Your task to perform on an android device: open app "Facebook Messenger" (install if not already installed) and enter user name: "divorce@inbox.com" and password: "caviar" Image 0: 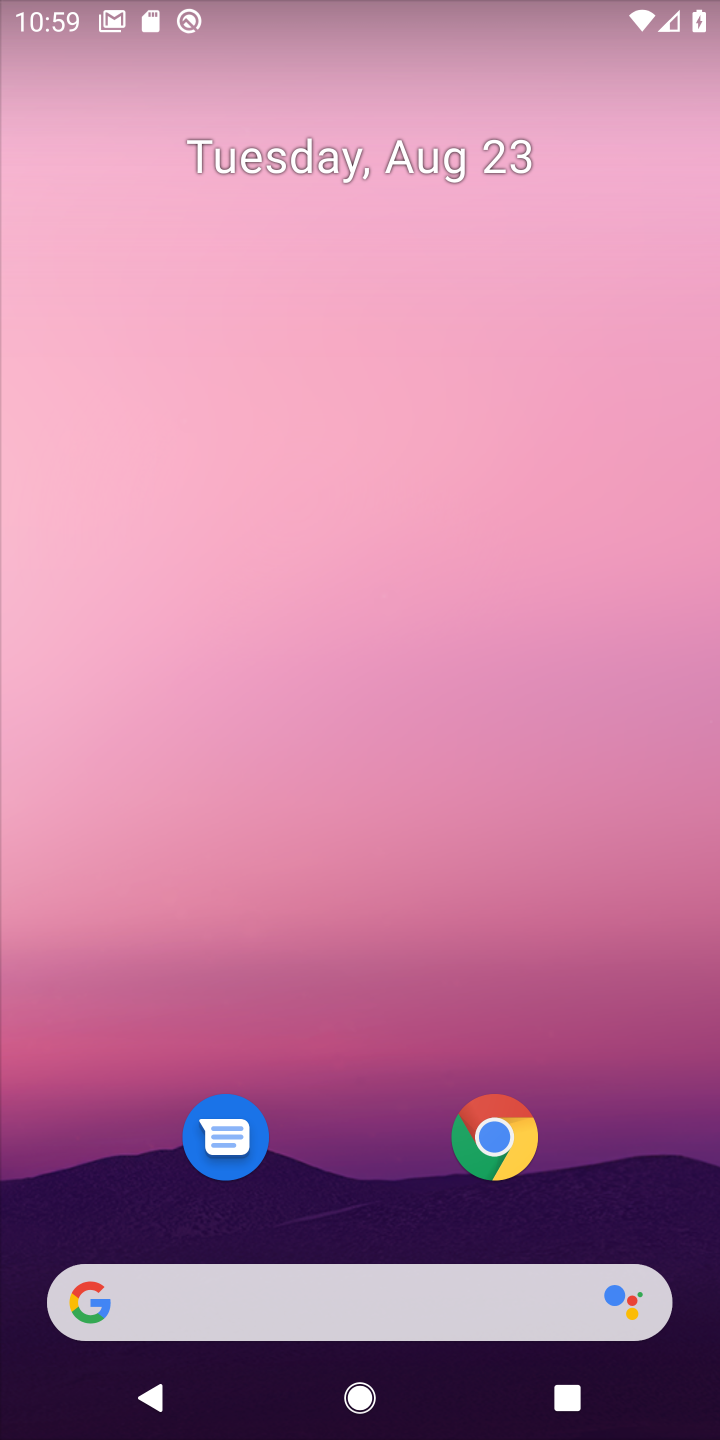
Step 0: drag from (351, 1202) to (678, 21)
Your task to perform on an android device: open app "Facebook Messenger" (install if not already installed) and enter user name: "divorce@inbox.com" and password: "caviar" Image 1: 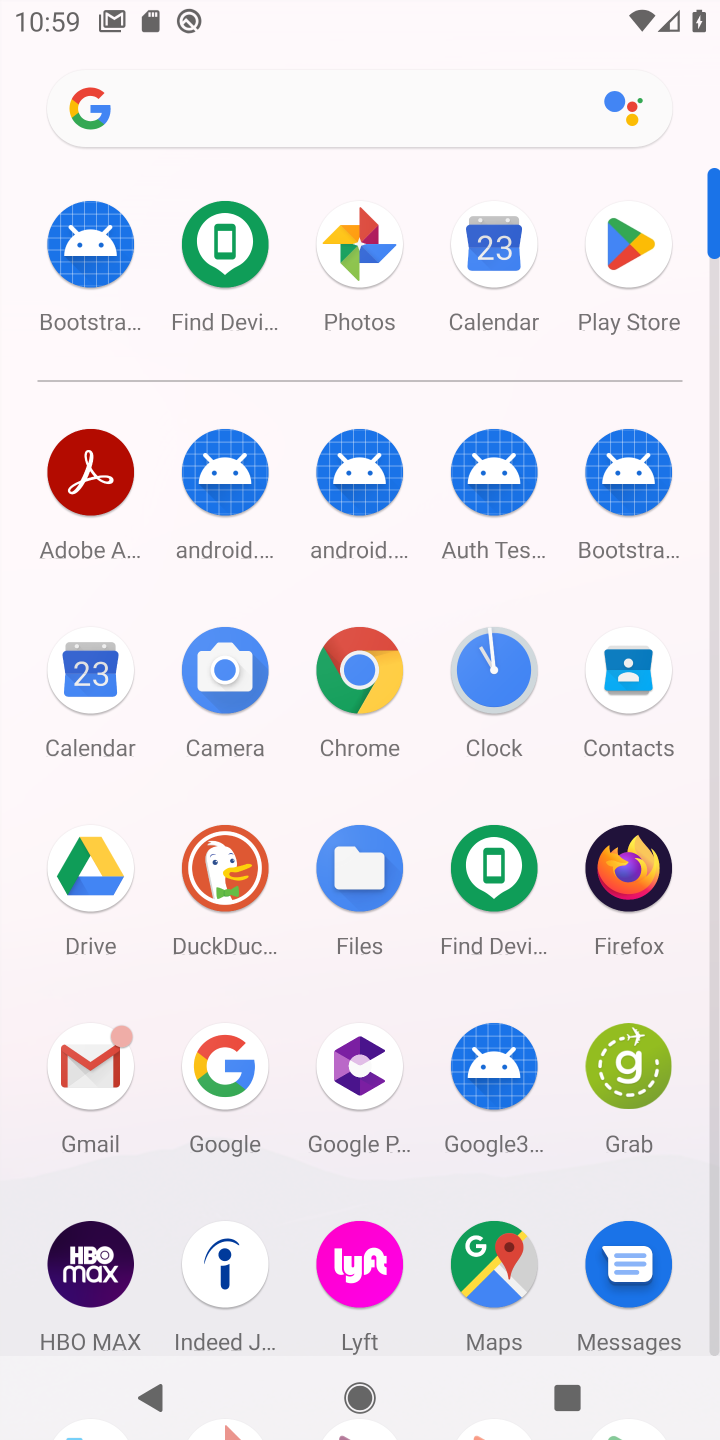
Step 1: click (643, 303)
Your task to perform on an android device: open app "Facebook Messenger" (install if not already installed) and enter user name: "divorce@inbox.com" and password: "caviar" Image 2: 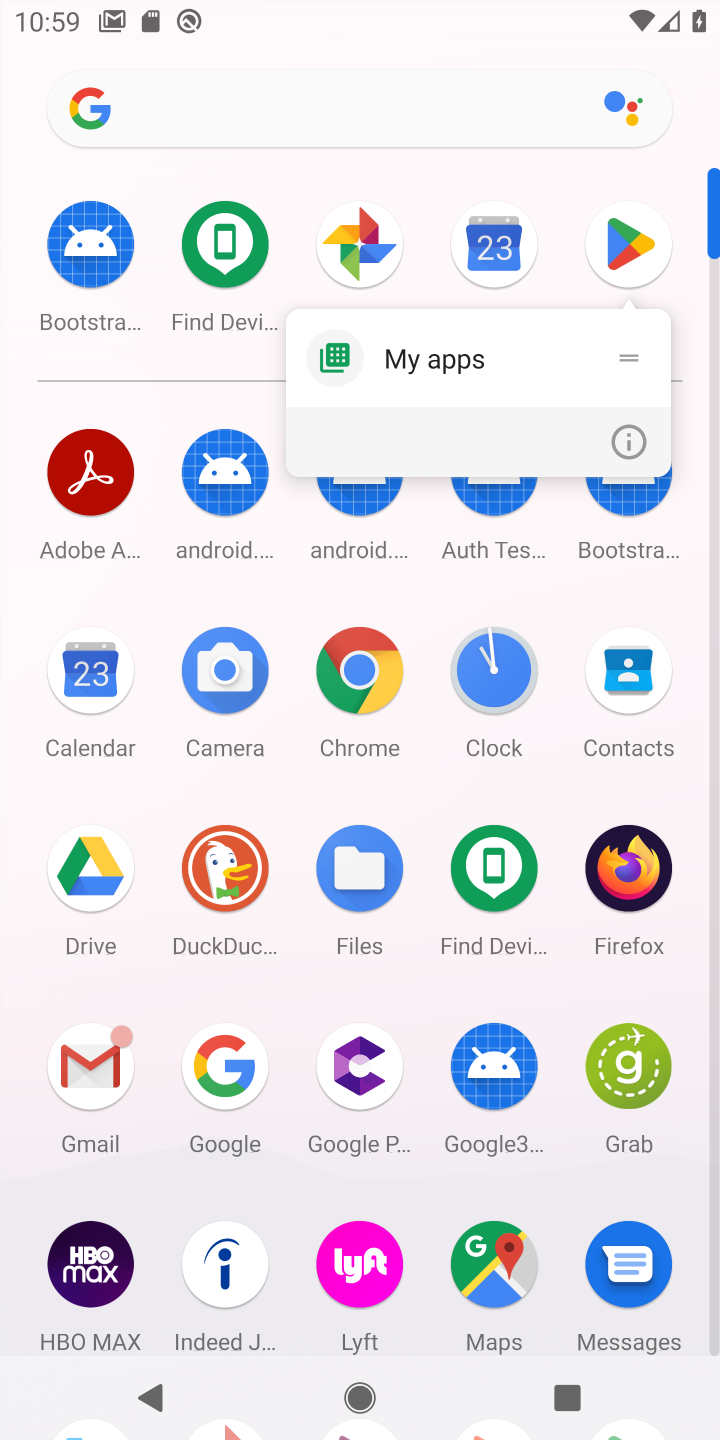
Step 2: click (618, 241)
Your task to perform on an android device: open app "Facebook Messenger" (install if not already installed) and enter user name: "divorce@inbox.com" and password: "caviar" Image 3: 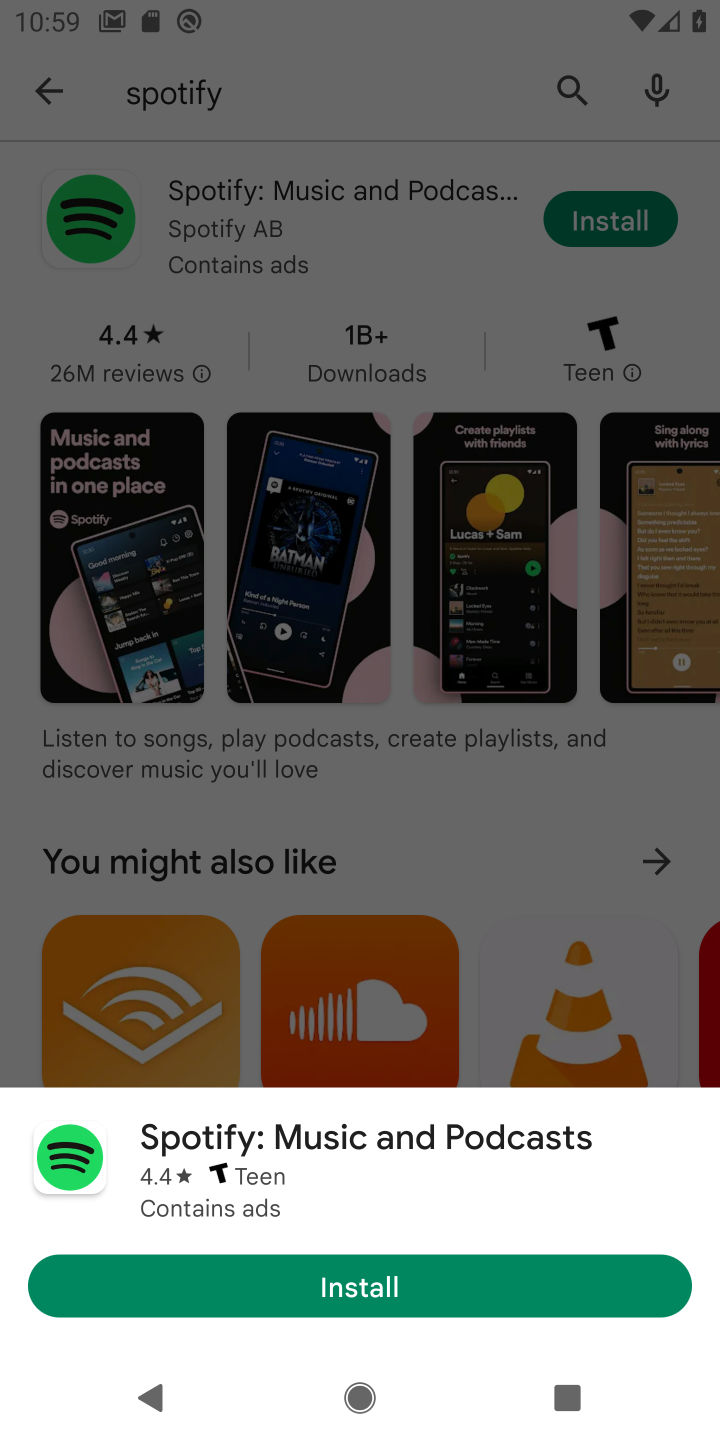
Step 3: click (202, 87)
Your task to perform on an android device: open app "Facebook Messenger" (install if not already installed) and enter user name: "divorce@inbox.com" and password: "caviar" Image 4: 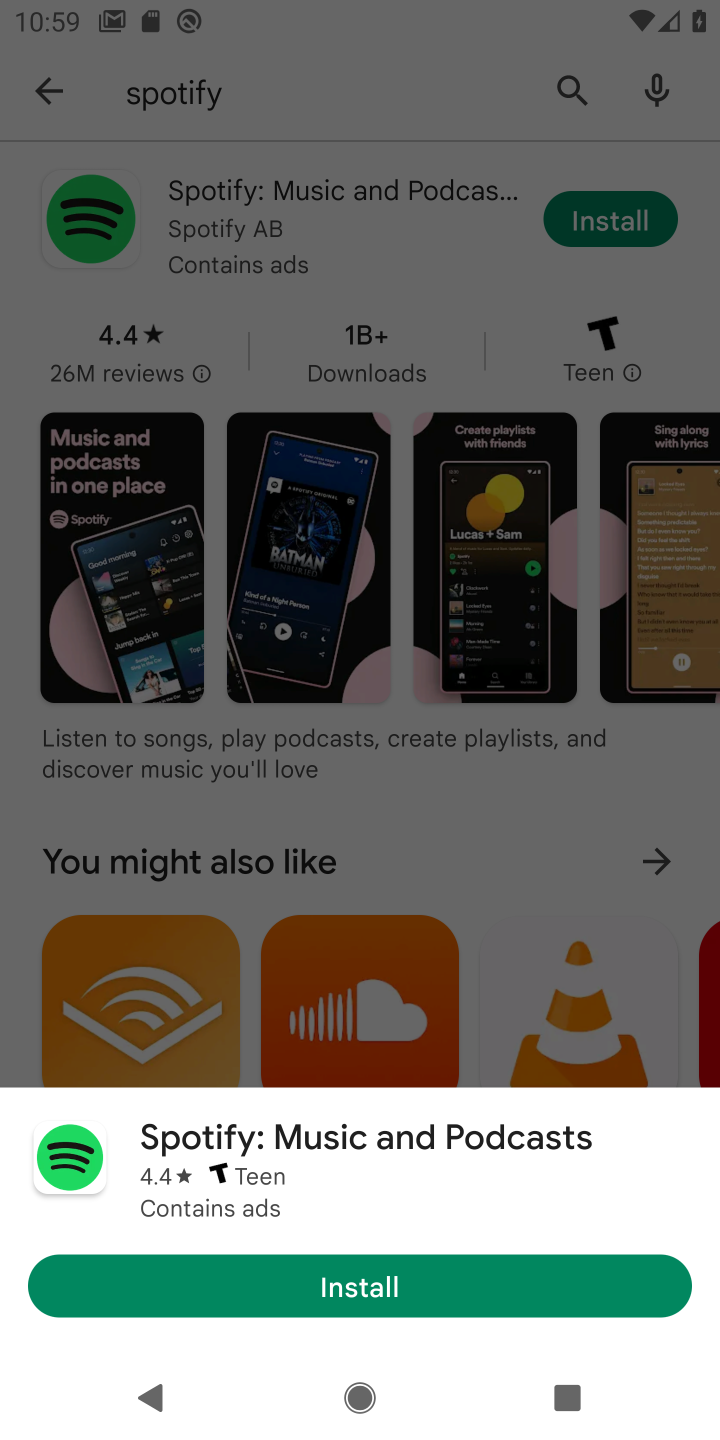
Step 4: click (36, 87)
Your task to perform on an android device: open app "Facebook Messenger" (install if not already installed) and enter user name: "divorce@inbox.com" and password: "caviar" Image 5: 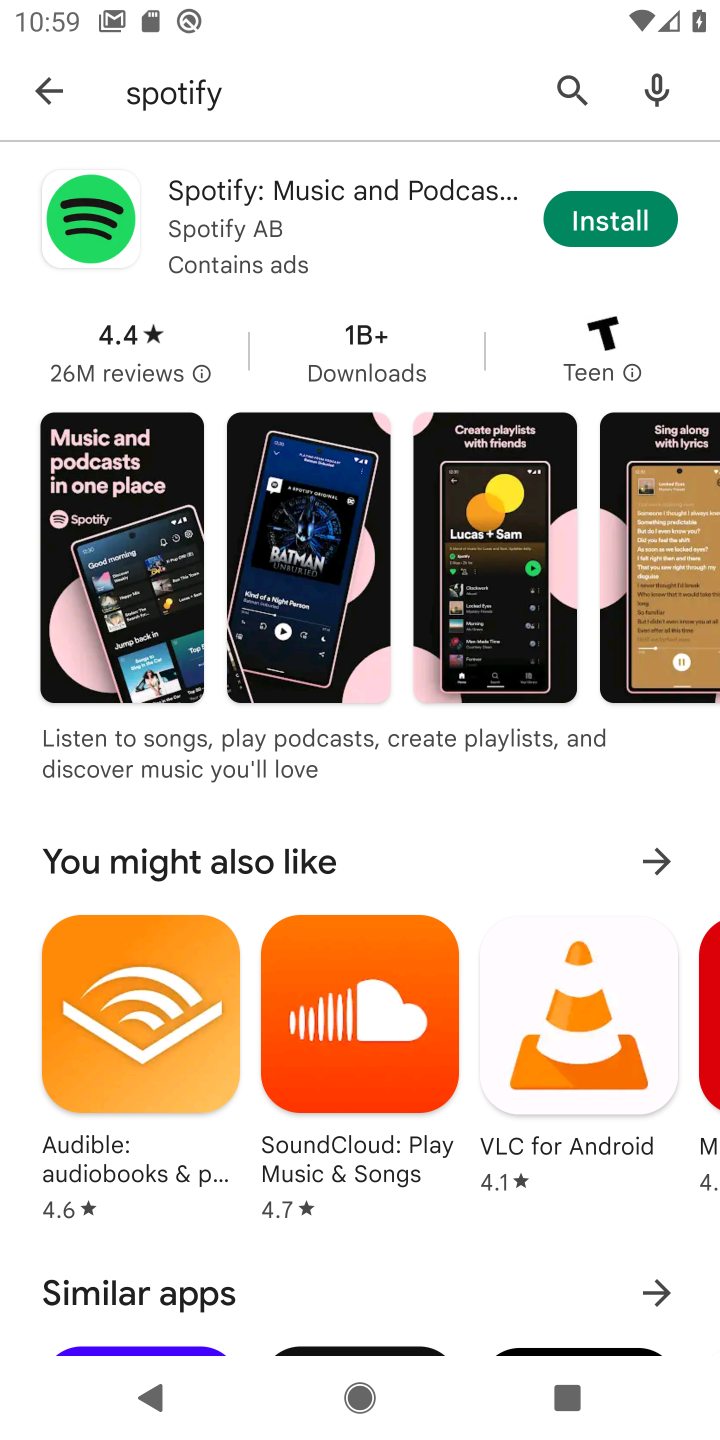
Step 5: click (47, 88)
Your task to perform on an android device: open app "Facebook Messenger" (install if not already installed) and enter user name: "divorce@inbox.com" and password: "caviar" Image 6: 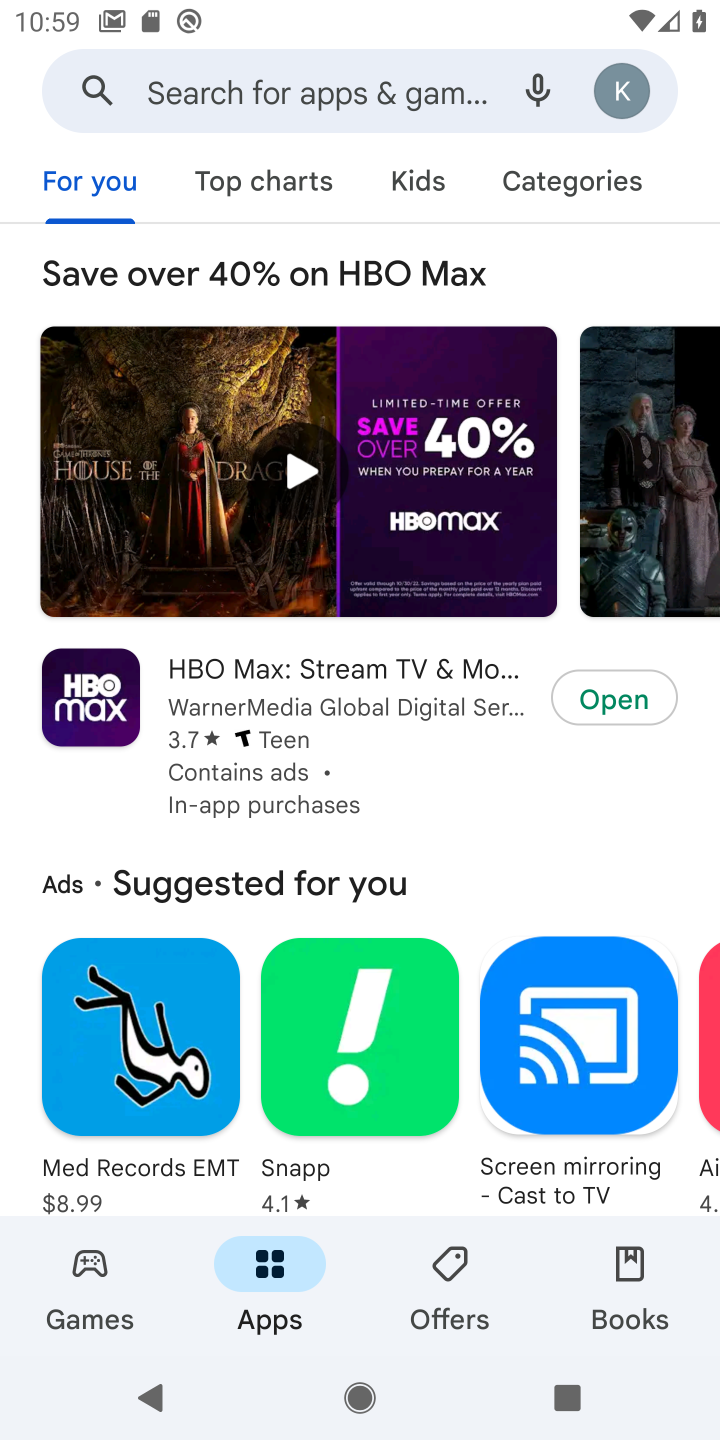
Step 6: click (315, 108)
Your task to perform on an android device: open app "Facebook Messenger" (install if not already installed) and enter user name: "divorce@inbox.com" and password: "caviar" Image 7: 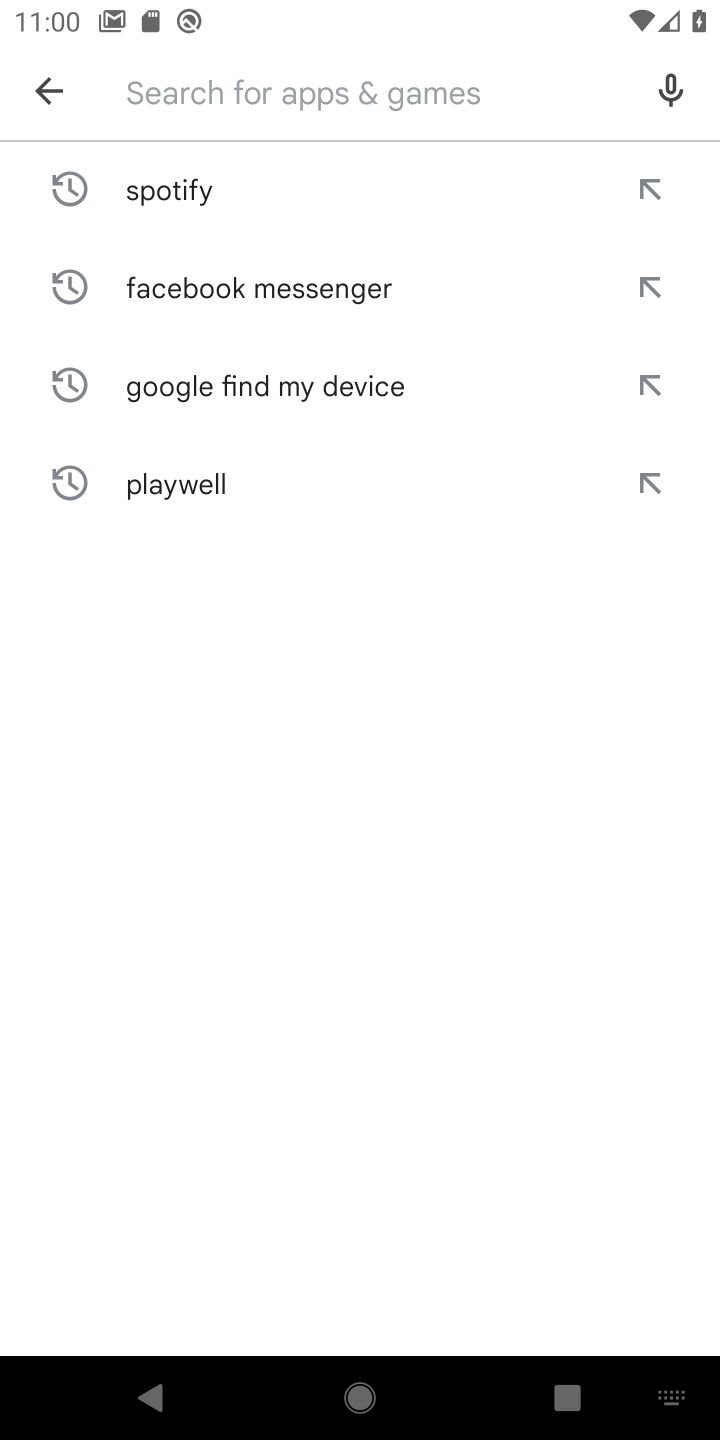
Step 7: type "facebook messenger"
Your task to perform on an android device: open app "Facebook Messenger" (install if not already installed) and enter user name: "divorce@inbox.com" and password: "caviar" Image 8: 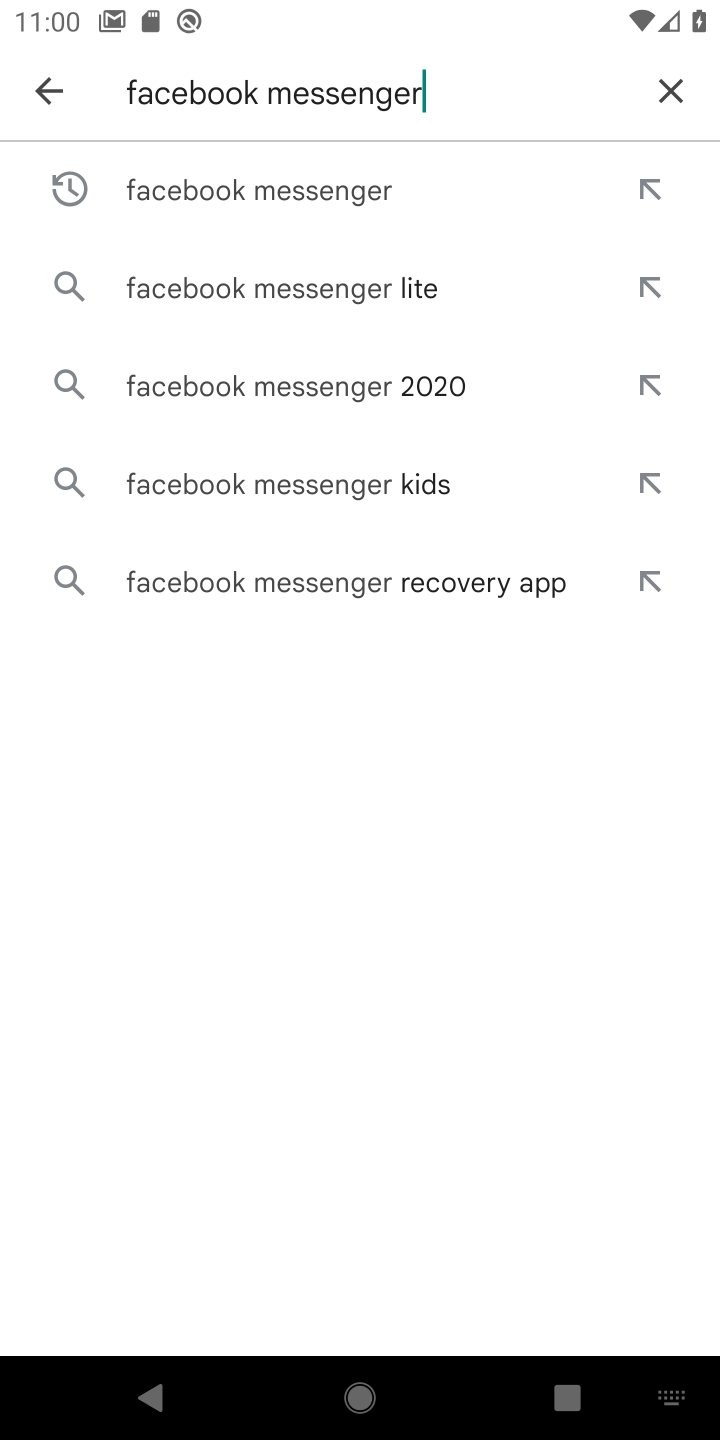
Step 8: click (299, 184)
Your task to perform on an android device: open app "Facebook Messenger" (install if not already installed) and enter user name: "divorce@inbox.com" and password: "caviar" Image 9: 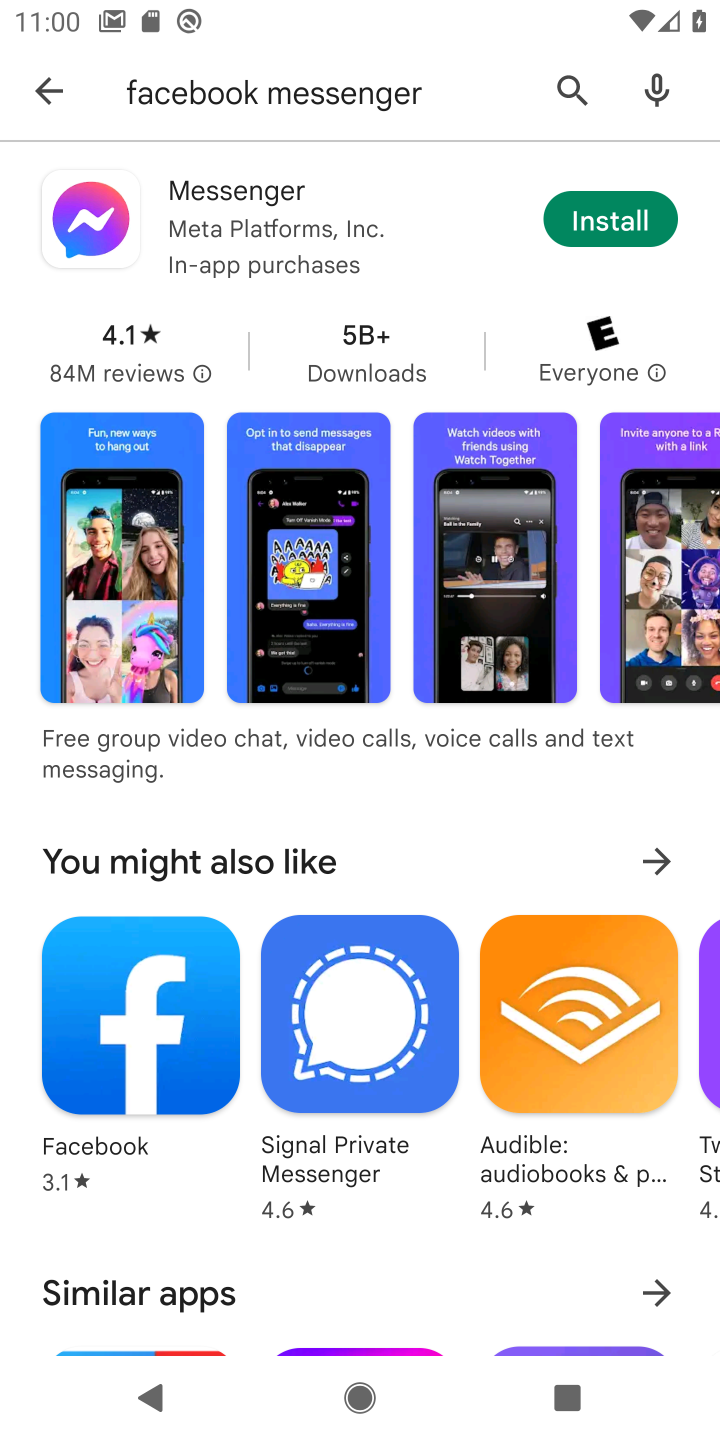
Step 9: click (602, 230)
Your task to perform on an android device: open app "Facebook Messenger" (install if not already installed) and enter user name: "divorce@inbox.com" and password: "caviar" Image 10: 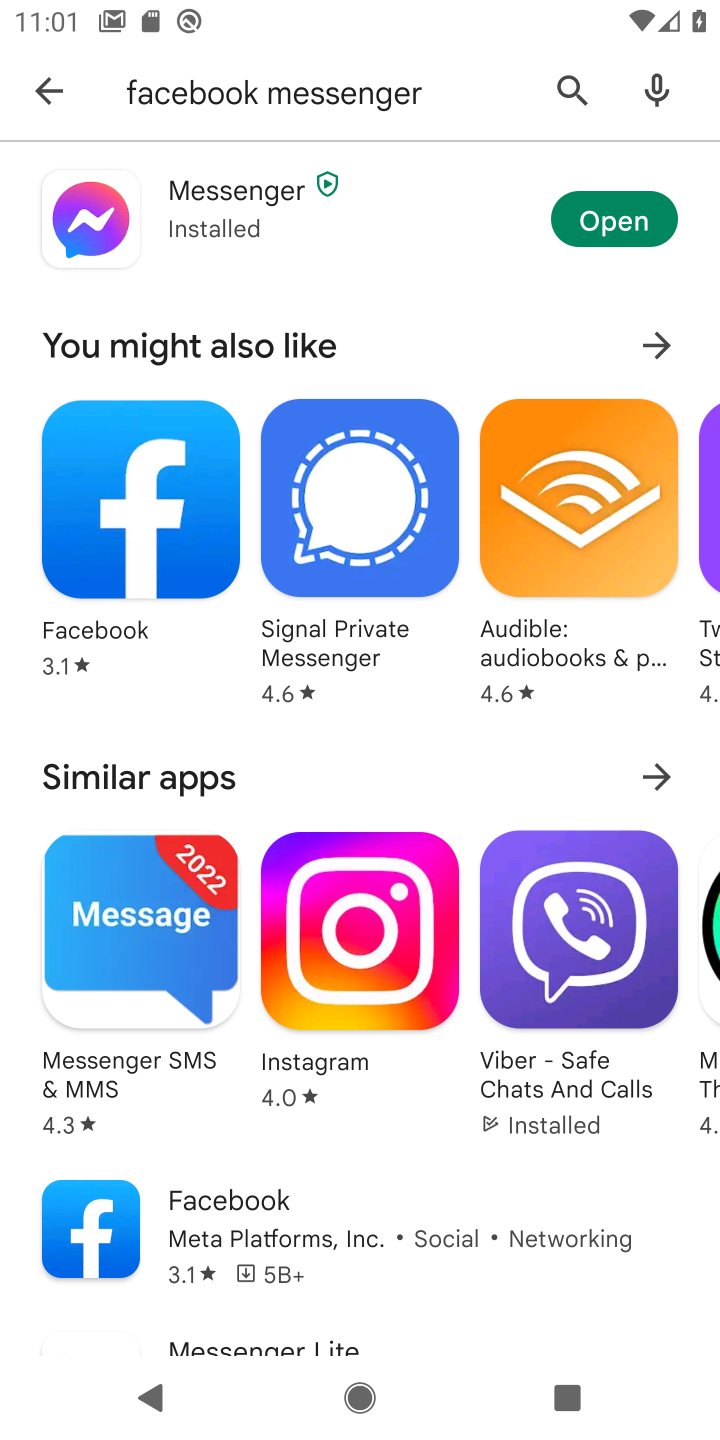
Step 10: click (617, 226)
Your task to perform on an android device: open app "Facebook Messenger" (install if not already installed) and enter user name: "divorce@inbox.com" and password: "caviar" Image 11: 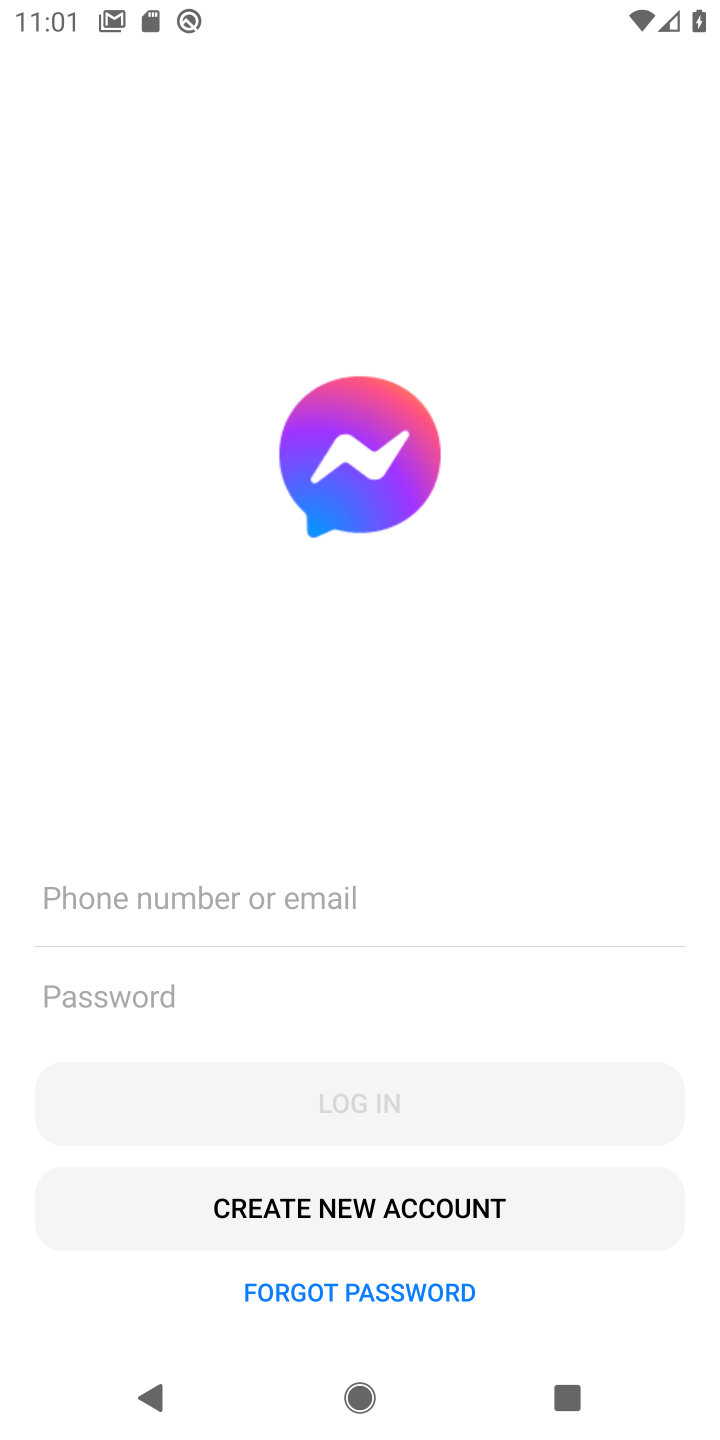
Step 11: click (208, 901)
Your task to perform on an android device: open app "Facebook Messenger" (install if not already installed) and enter user name: "divorce@inbox.com" and password: "caviar" Image 12: 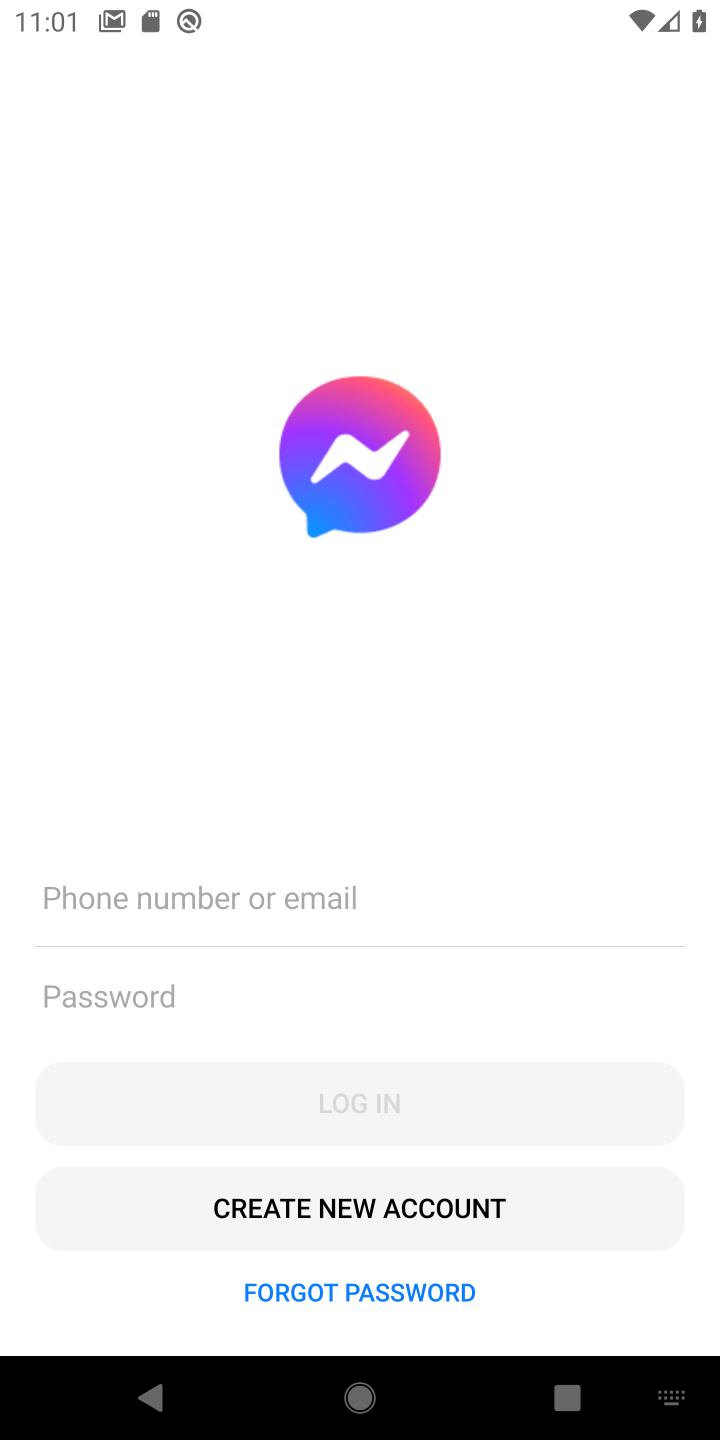
Step 12: type "divorce@inbox.com"
Your task to perform on an android device: open app "Facebook Messenger" (install if not already installed) and enter user name: "divorce@inbox.com" and password: "caviar" Image 13: 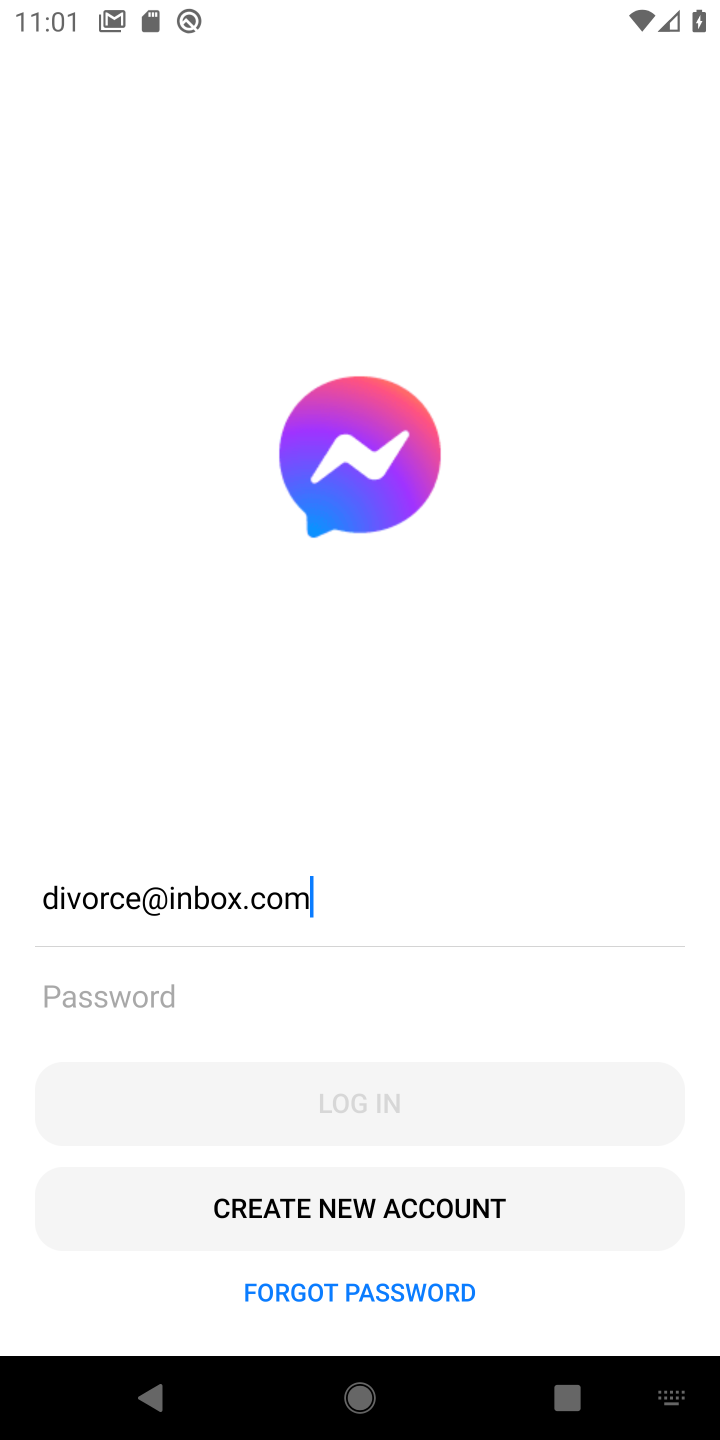
Step 13: click (353, 990)
Your task to perform on an android device: open app "Facebook Messenger" (install if not already installed) and enter user name: "divorce@inbox.com" and password: "caviar" Image 14: 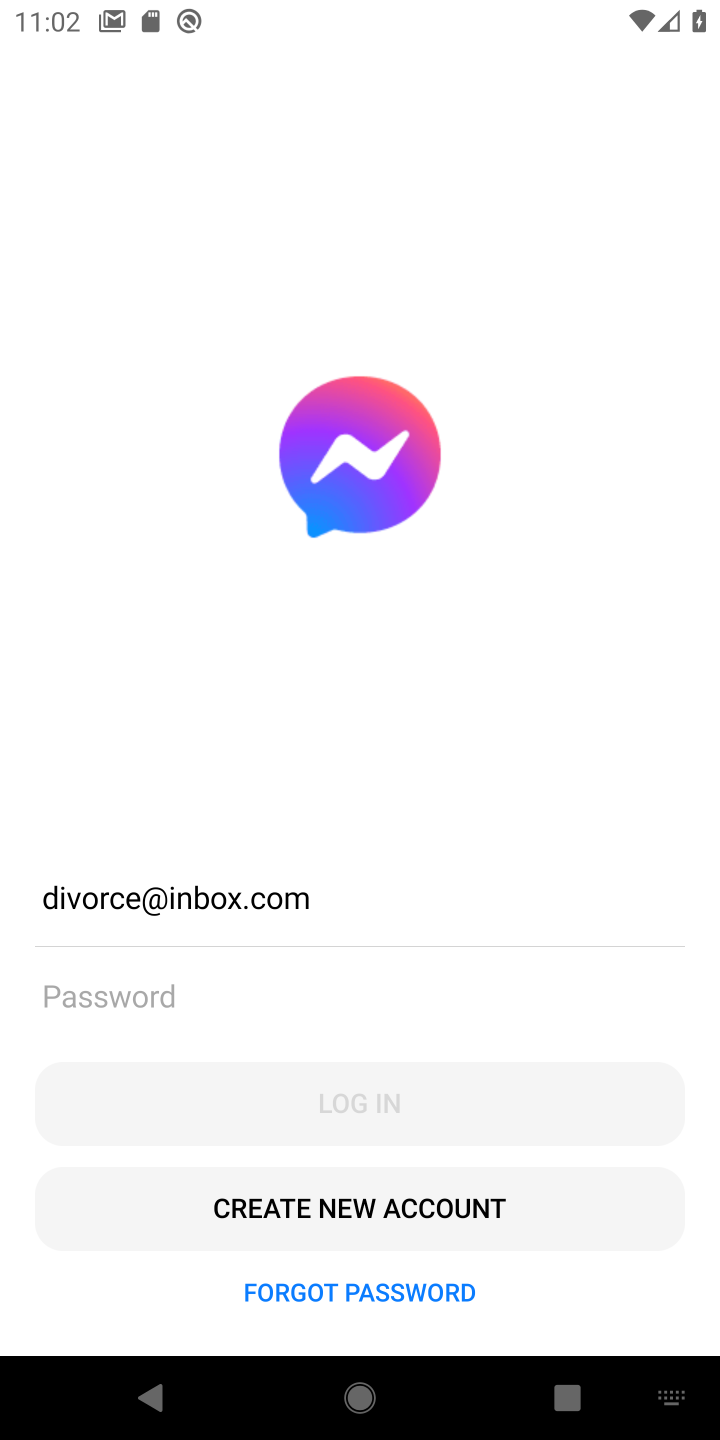
Step 14: type "caviar"
Your task to perform on an android device: open app "Facebook Messenger" (install if not already installed) and enter user name: "divorce@inbox.com" and password: "caviar" Image 15: 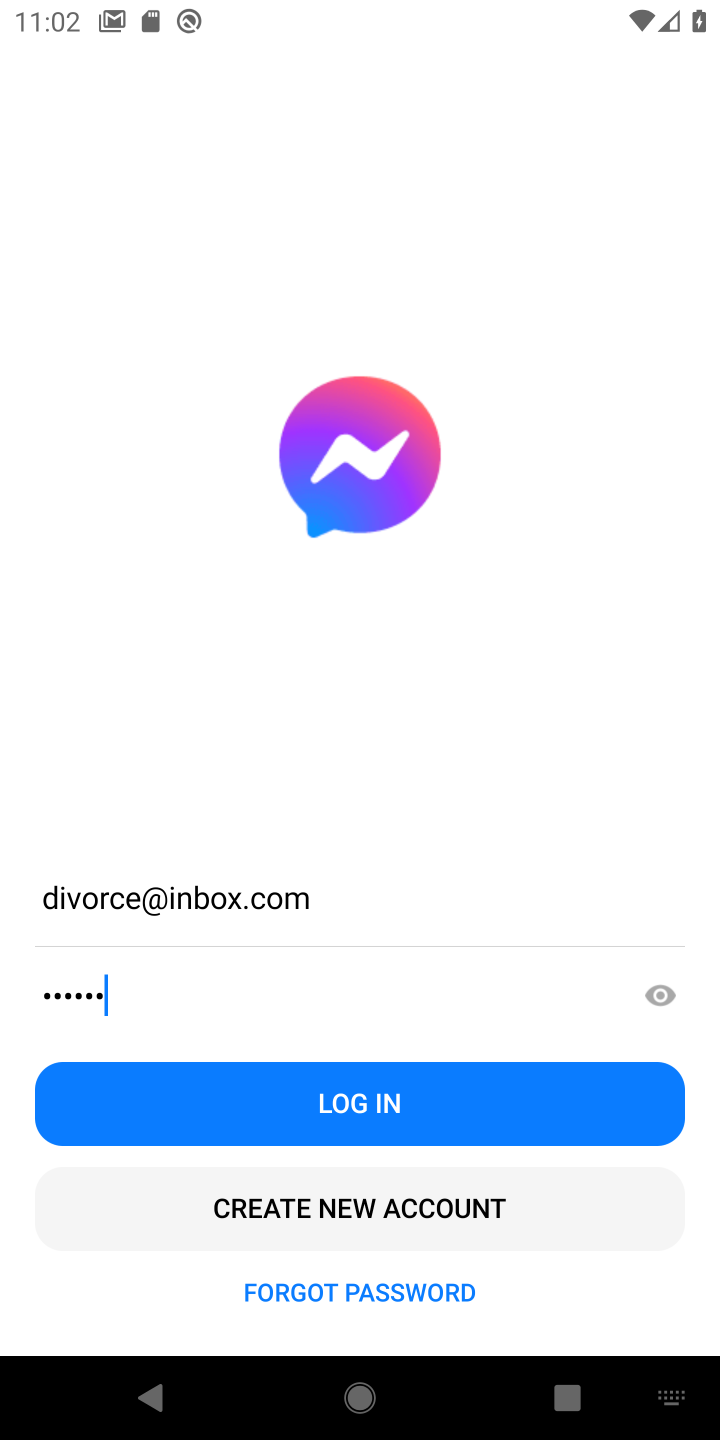
Step 15: click (661, 985)
Your task to perform on an android device: open app "Facebook Messenger" (install if not already installed) and enter user name: "divorce@inbox.com" and password: "caviar" Image 16: 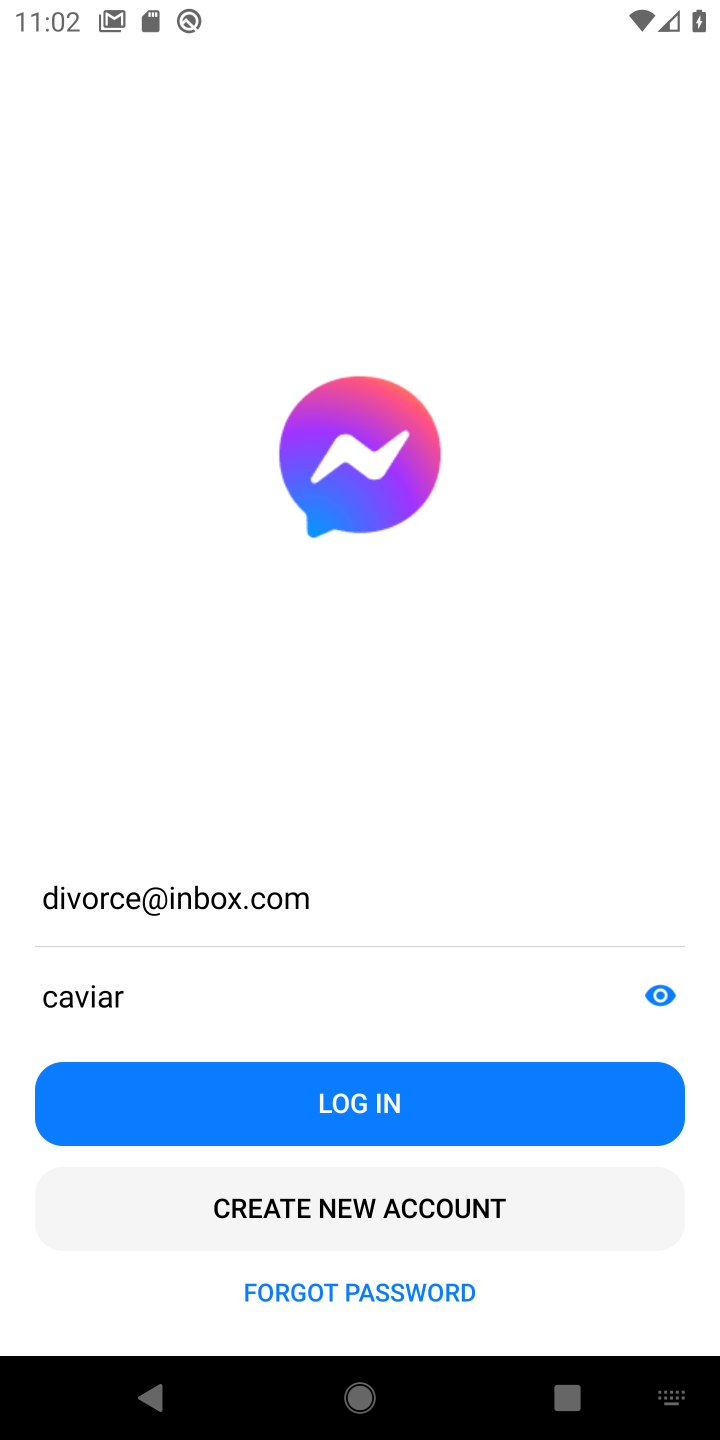
Step 16: click (516, 1099)
Your task to perform on an android device: open app "Facebook Messenger" (install if not already installed) and enter user name: "divorce@inbox.com" and password: "caviar" Image 17: 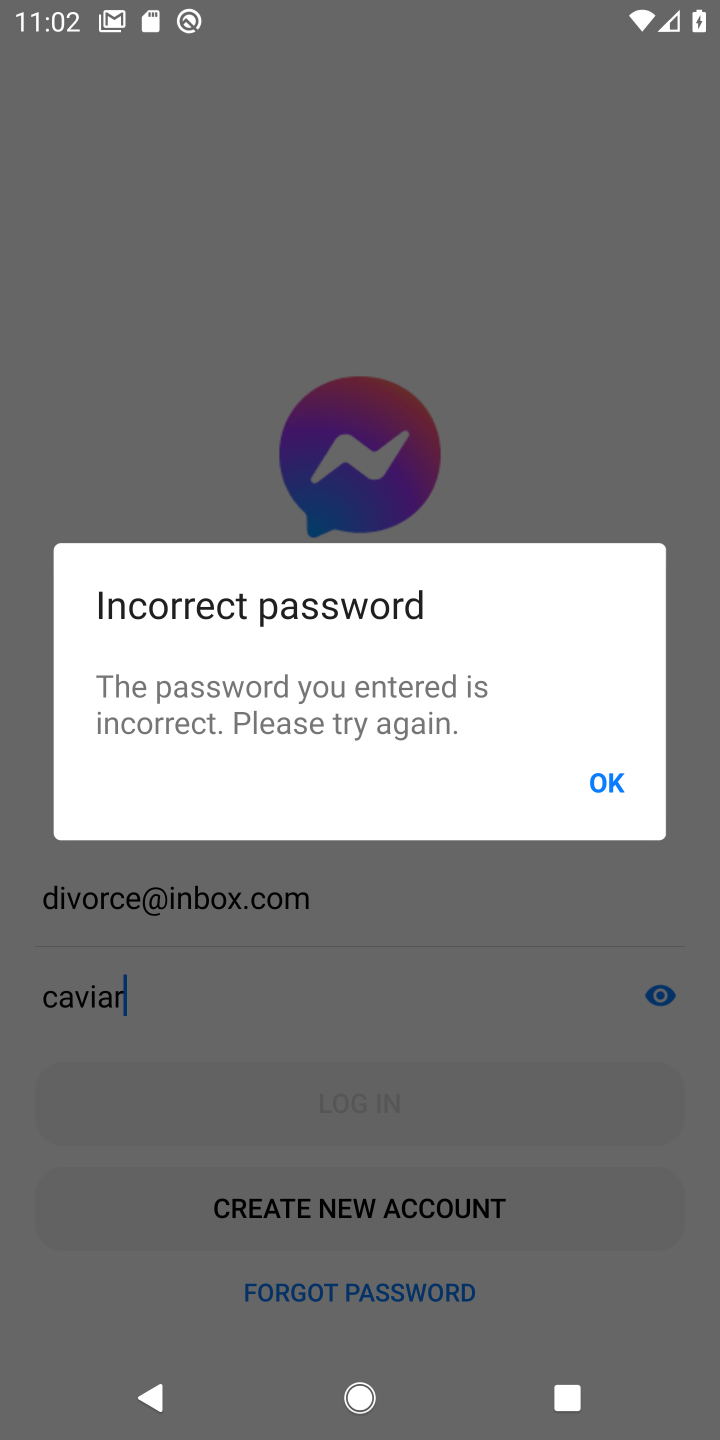
Step 17: task complete